Your task to perform on an android device: Go to internet settings Image 0: 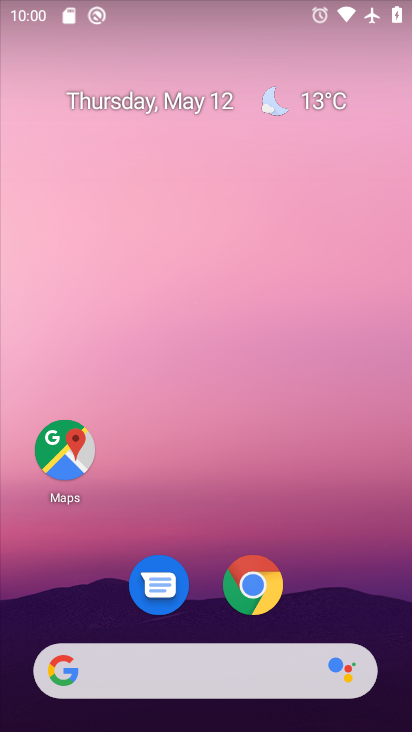
Step 0: drag from (182, 466) to (180, 78)
Your task to perform on an android device: Go to internet settings Image 1: 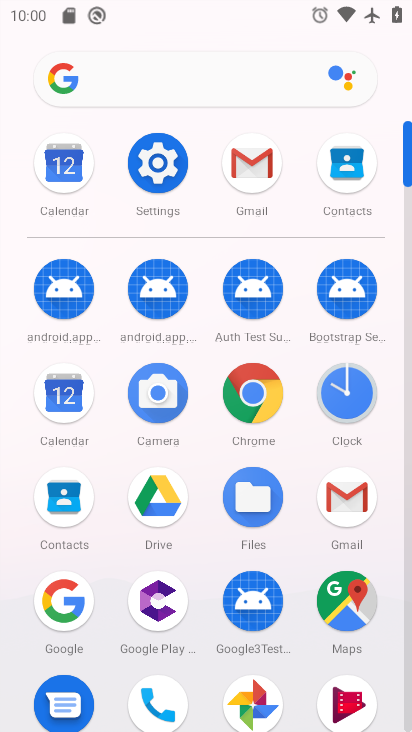
Step 1: click (165, 150)
Your task to perform on an android device: Go to internet settings Image 2: 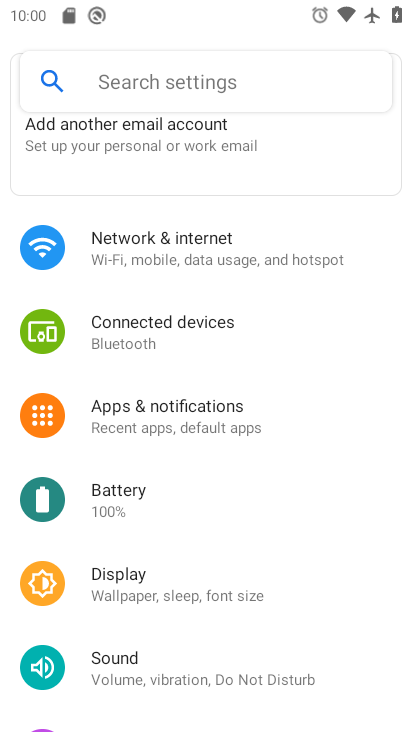
Step 2: click (209, 244)
Your task to perform on an android device: Go to internet settings Image 3: 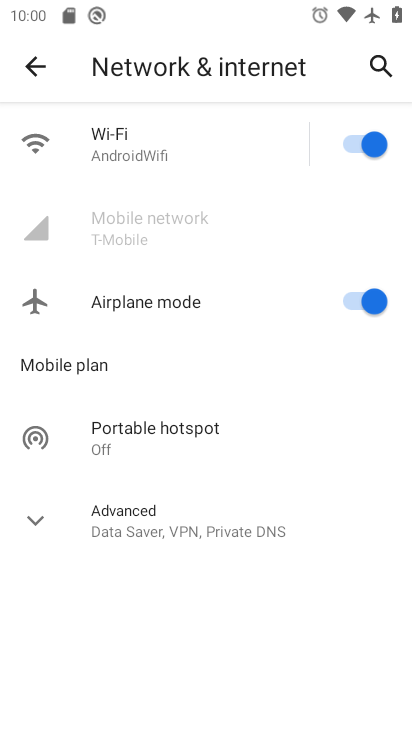
Step 3: task complete